Your task to perform on an android device: What's on my calendar today? Image 0: 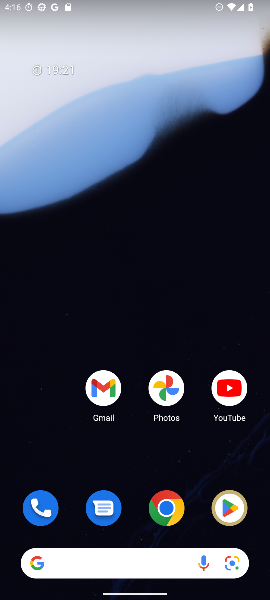
Step 0: drag from (122, 537) to (153, 150)
Your task to perform on an android device: What's on my calendar today? Image 1: 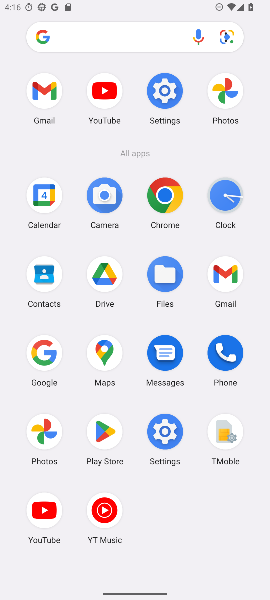
Step 1: click (46, 192)
Your task to perform on an android device: What's on my calendar today? Image 2: 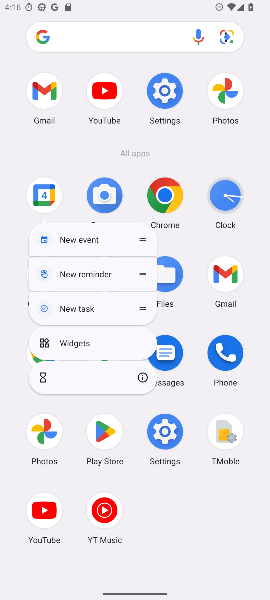
Step 2: click (140, 375)
Your task to perform on an android device: What's on my calendar today? Image 3: 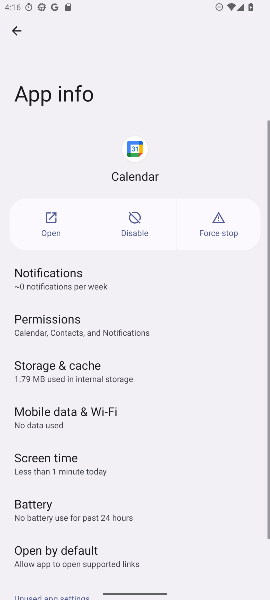
Step 3: click (66, 227)
Your task to perform on an android device: What's on my calendar today? Image 4: 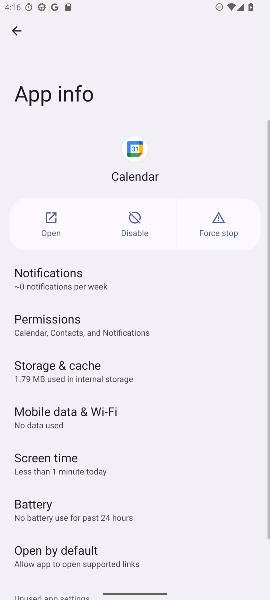
Step 4: click (56, 230)
Your task to perform on an android device: What's on my calendar today? Image 5: 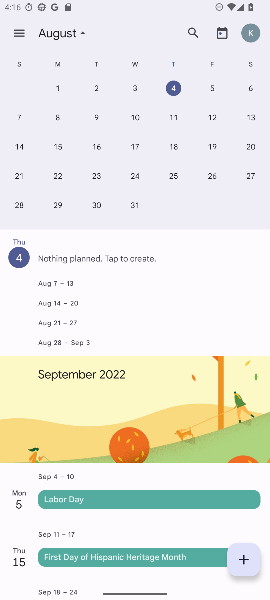
Step 5: click (173, 88)
Your task to perform on an android device: What's on my calendar today? Image 6: 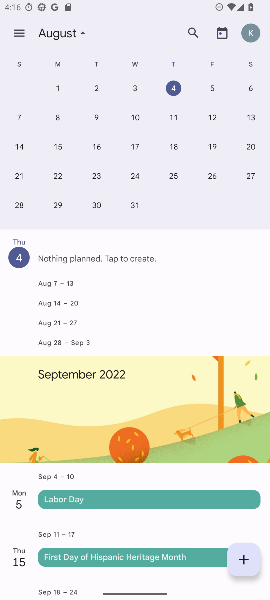
Step 6: task complete